Your task to perform on an android device: change the clock style Image 0: 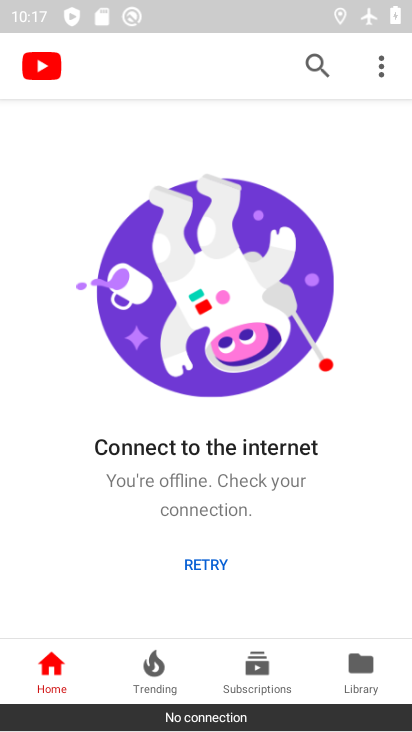
Step 0: press back button
Your task to perform on an android device: change the clock style Image 1: 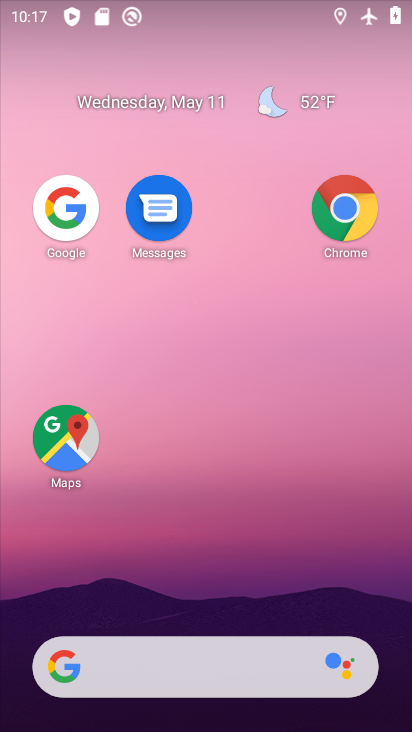
Step 1: drag from (219, 629) to (62, 50)
Your task to perform on an android device: change the clock style Image 2: 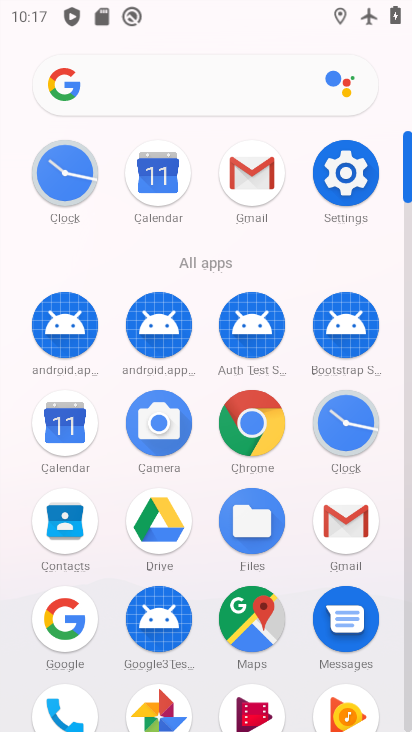
Step 2: click (328, 431)
Your task to perform on an android device: change the clock style Image 3: 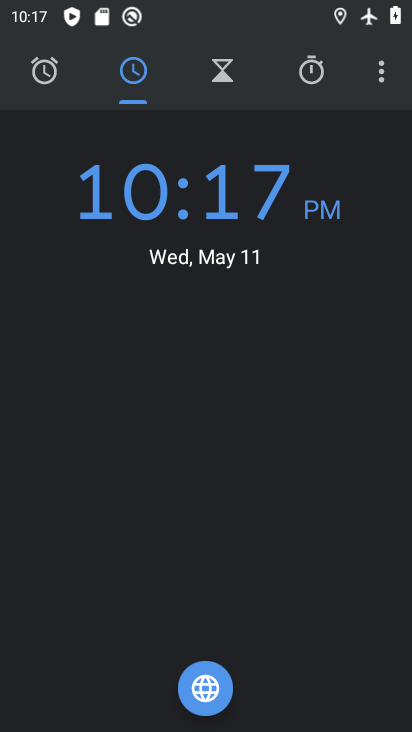
Step 3: click (375, 67)
Your task to perform on an android device: change the clock style Image 4: 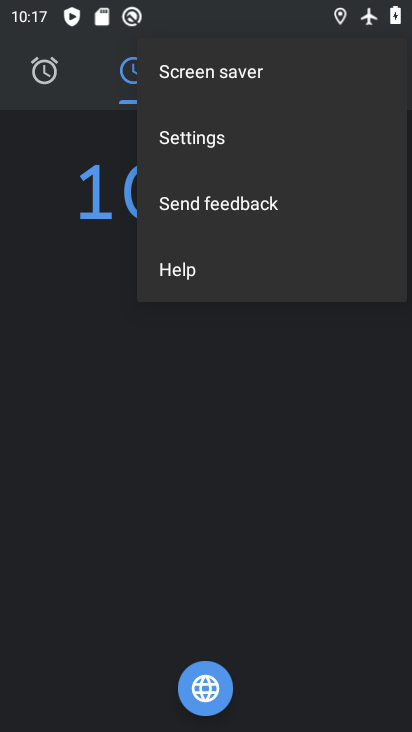
Step 4: click (193, 138)
Your task to perform on an android device: change the clock style Image 5: 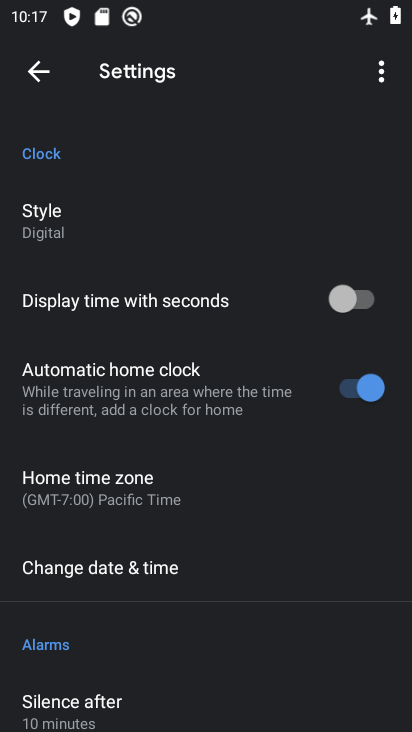
Step 5: click (52, 240)
Your task to perform on an android device: change the clock style Image 6: 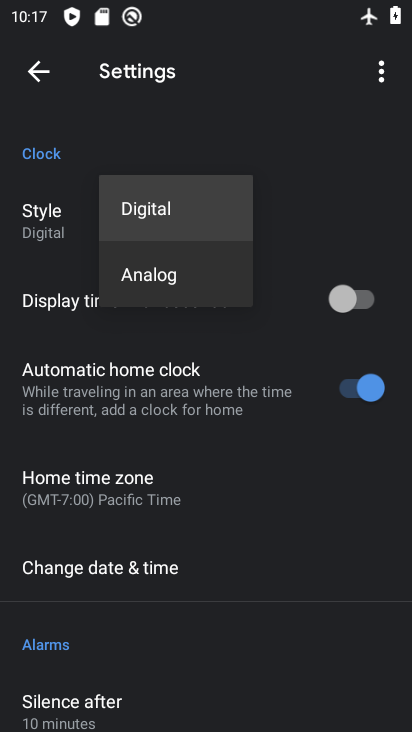
Step 6: click (185, 284)
Your task to perform on an android device: change the clock style Image 7: 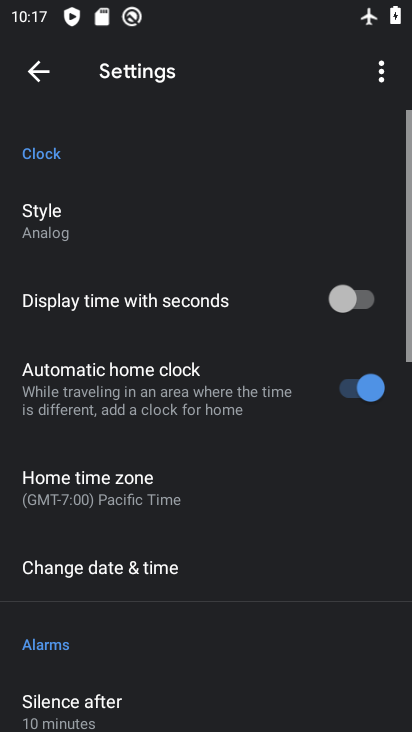
Step 7: task complete